Your task to perform on an android device: Go to accessibility settings Image 0: 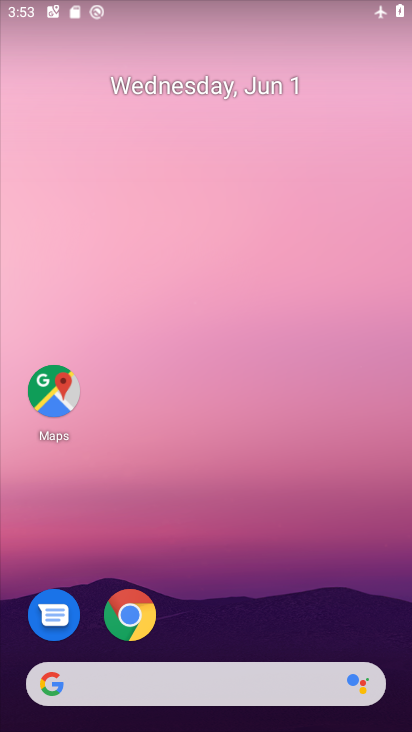
Step 0: drag from (298, 413) to (306, 58)
Your task to perform on an android device: Go to accessibility settings Image 1: 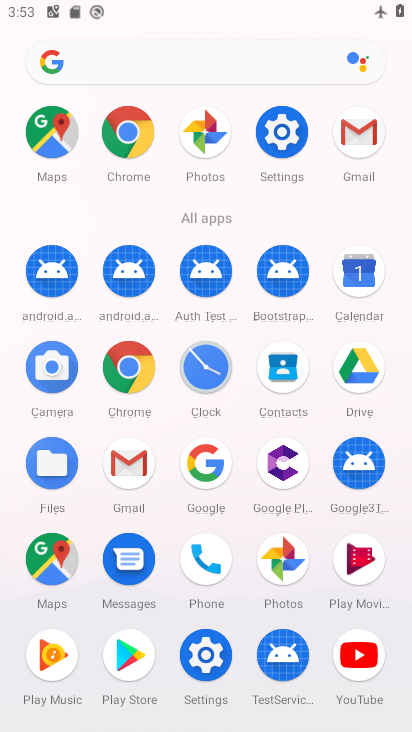
Step 1: click (287, 128)
Your task to perform on an android device: Go to accessibility settings Image 2: 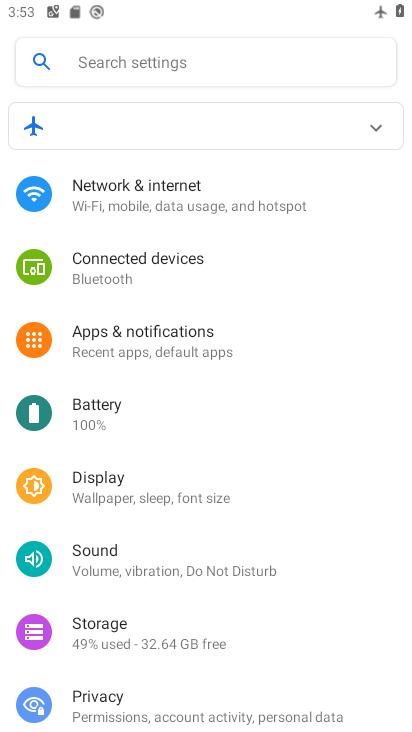
Step 2: drag from (210, 503) to (265, 140)
Your task to perform on an android device: Go to accessibility settings Image 3: 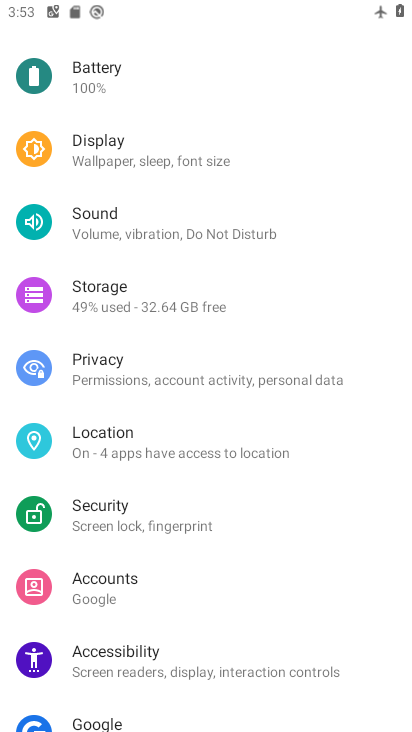
Step 3: click (123, 644)
Your task to perform on an android device: Go to accessibility settings Image 4: 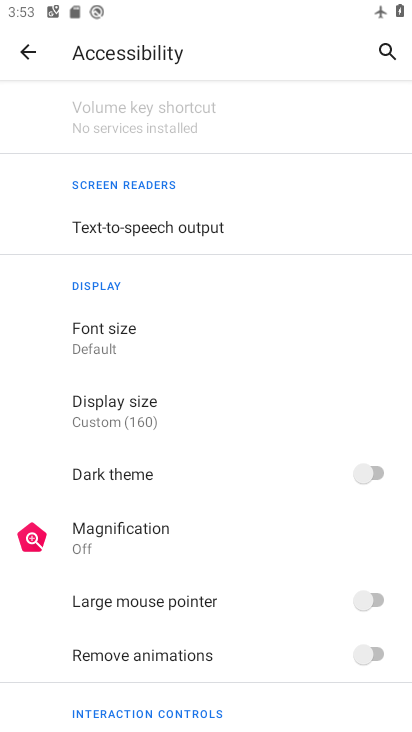
Step 4: task complete